Your task to perform on an android device: turn notification dots on Image 0: 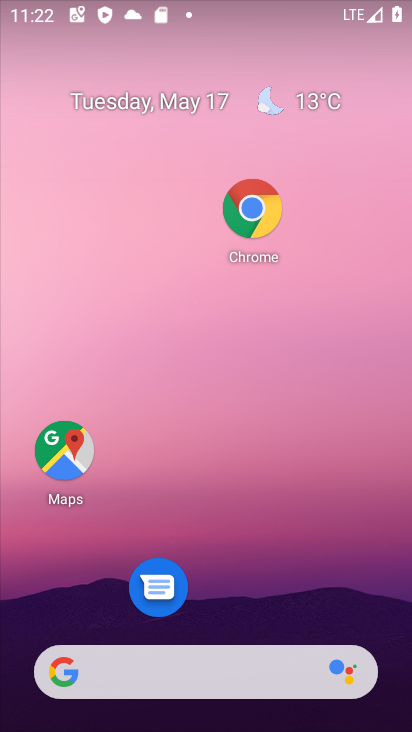
Step 0: drag from (299, 564) to (317, 104)
Your task to perform on an android device: turn notification dots on Image 1: 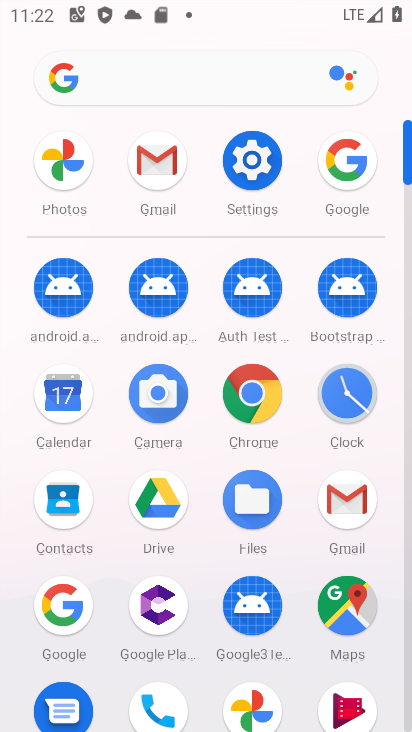
Step 1: click (243, 168)
Your task to perform on an android device: turn notification dots on Image 2: 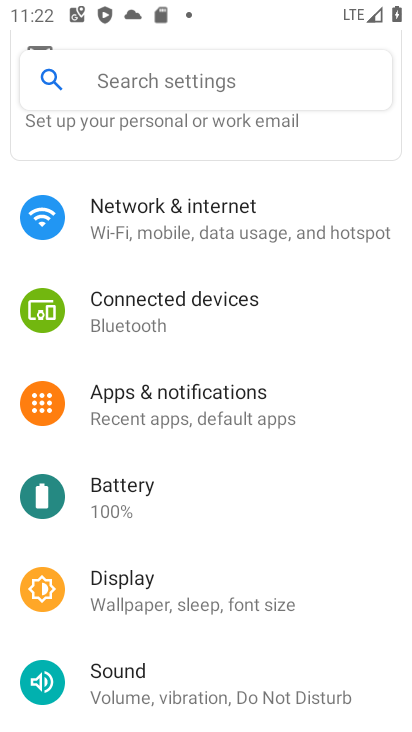
Step 2: click (242, 404)
Your task to perform on an android device: turn notification dots on Image 3: 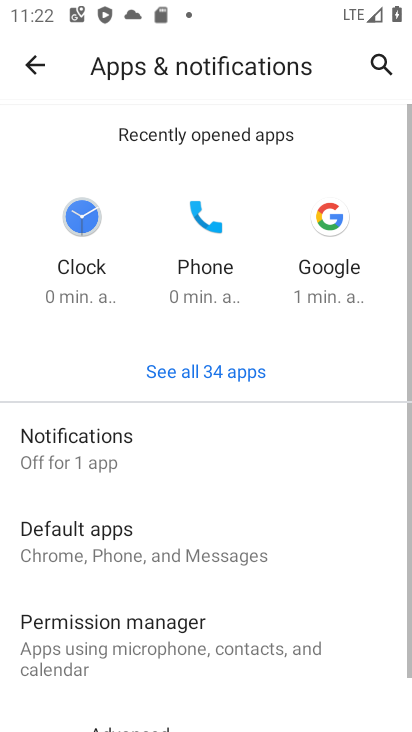
Step 3: click (153, 439)
Your task to perform on an android device: turn notification dots on Image 4: 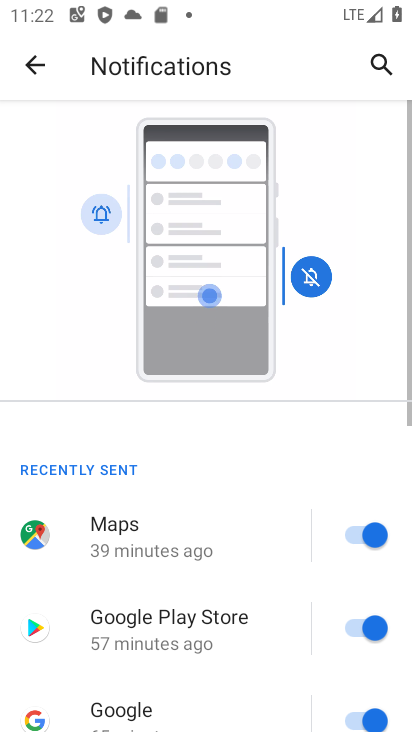
Step 4: drag from (287, 603) to (290, 210)
Your task to perform on an android device: turn notification dots on Image 5: 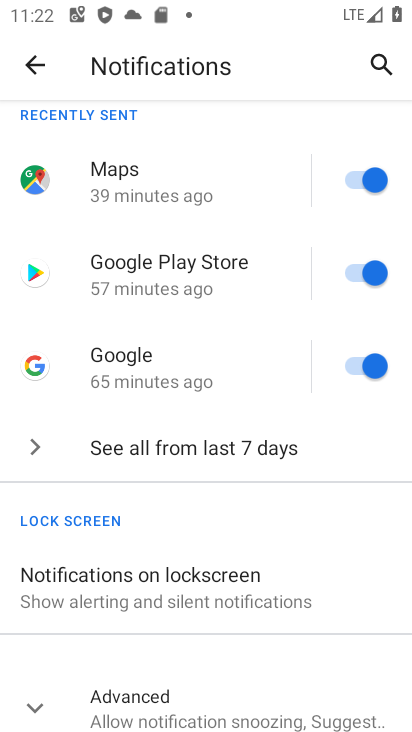
Step 5: drag from (261, 594) to (286, 211)
Your task to perform on an android device: turn notification dots on Image 6: 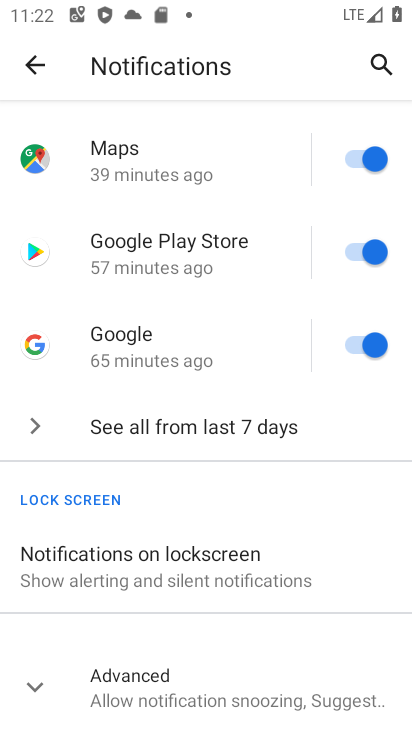
Step 6: click (207, 699)
Your task to perform on an android device: turn notification dots on Image 7: 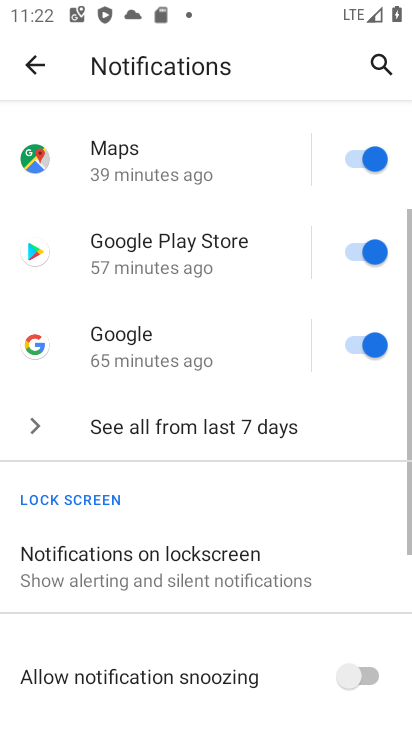
Step 7: click (207, 699)
Your task to perform on an android device: turn notification dots on Image 8: 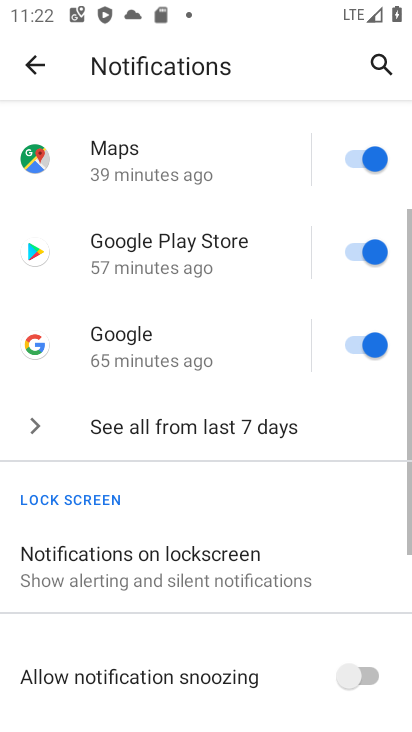
Step 8: drag from (207, 699) to (259, 354)
Your task to perform on an android device: turn notification dots on Image 9: 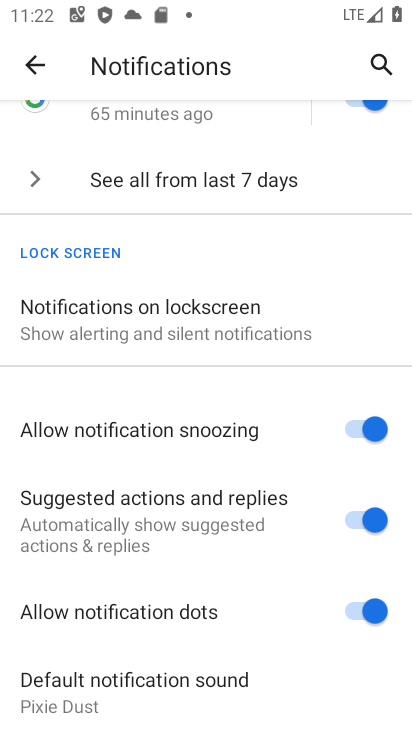
Step 9: click (352, 615)
Your task to perform on an android device: turn notification dots on Image 10: 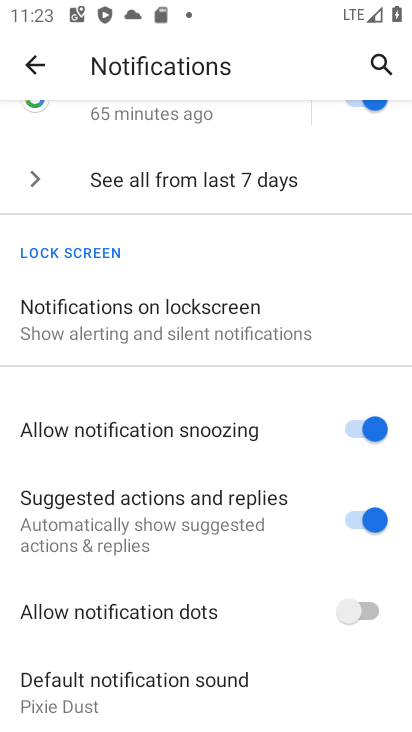
Step 10: task complete